Your task to perform on an android device: check battery use Image 0: 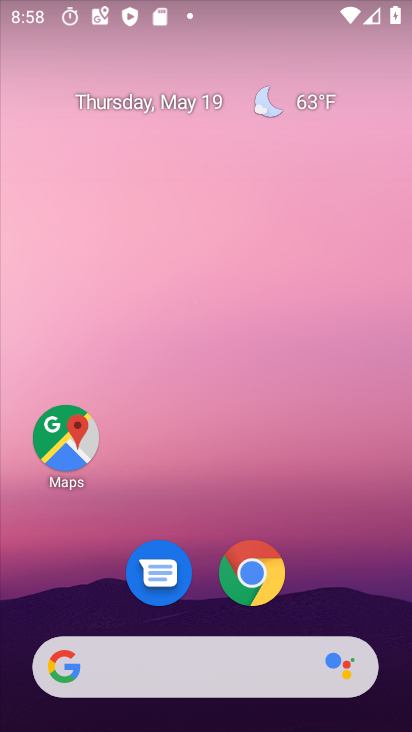
Step 0: drag from (359, 570) to (245, 0)
Your task to perform on an android device: check battery use Image 1: 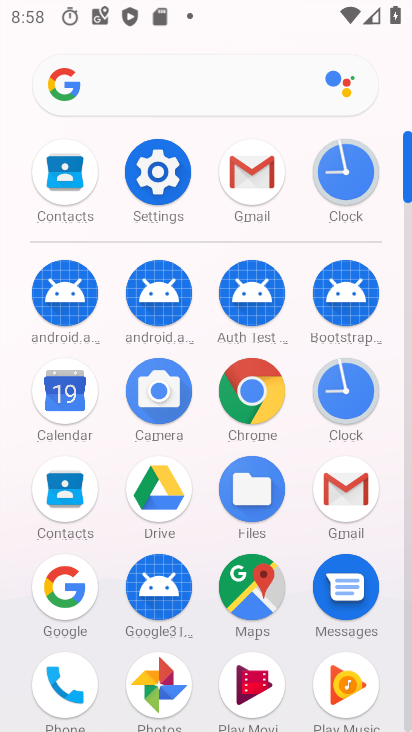
Step 1: click (149, 195)
Your task to perform on an android device: check battery use Image 2: 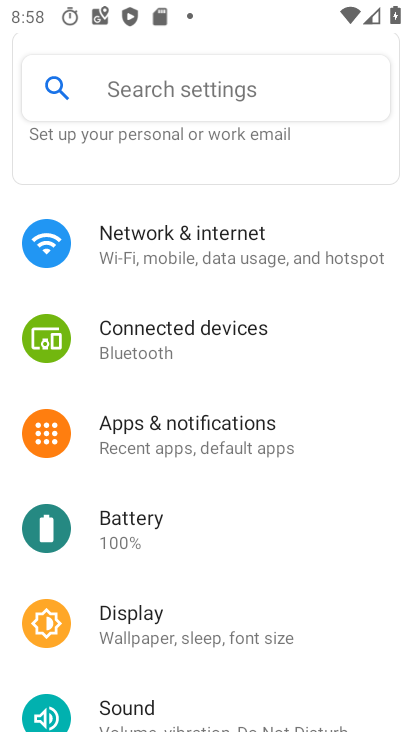
Step 2: click (137, 543)
Your task to perform on an android device: check battery use Image 3: 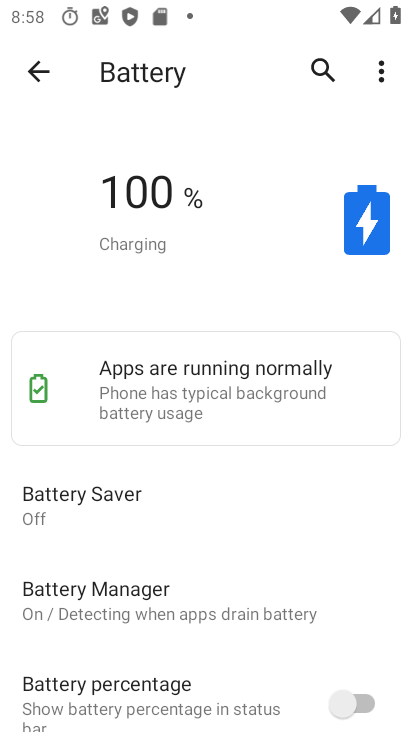
Step 3: click (385, 79)
Your task to perform on an android device: check battery use Image 4: 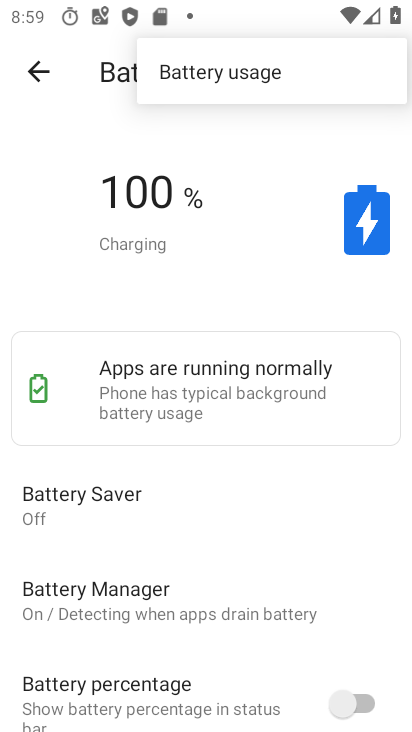
Step 4: click (188, 76)
Your task to perform on an android device: check battery use Image 5: 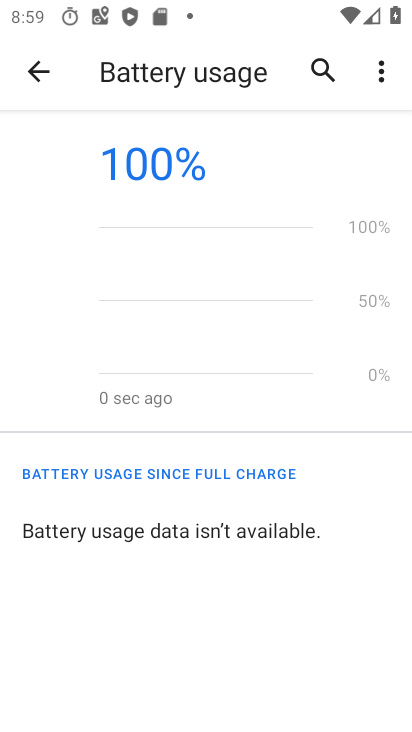
Step 5: task complete